Your task to perform on an android device: open the mobile data screen to see how much data has been used Image 0: 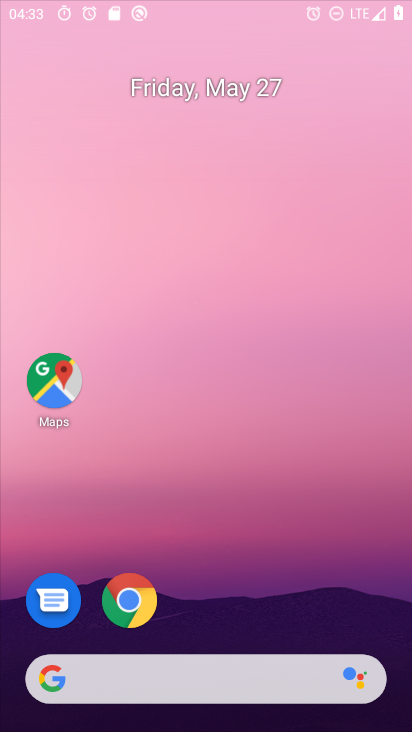
Step 0: drag from (161, 442) to (132, 117)
Your task to perform on an android device: open the mobile data screen to see how much data has been used Image 1: 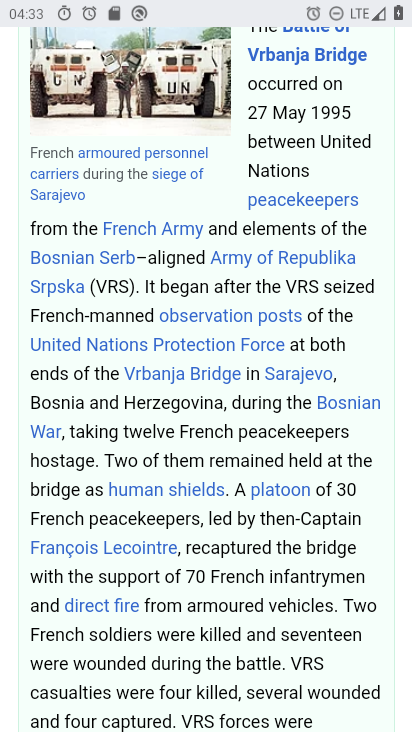
Step 1: press home button
Your task to perform on an android device: open the mobile data screen to see how much data has been used Image 2: 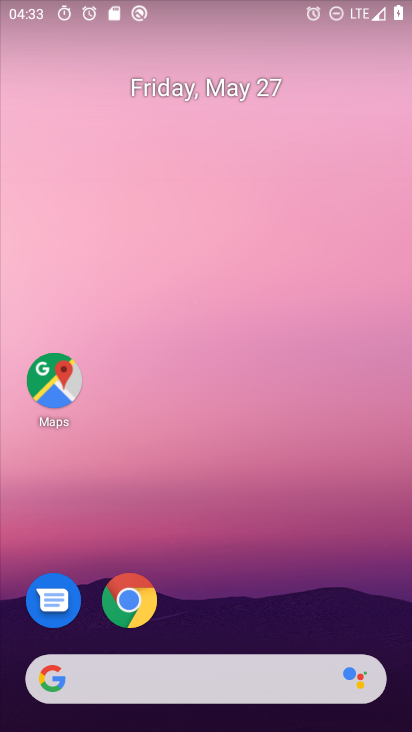
Step 2: drag from (216, 722) to (218, 40)
Your task to perform on an android device: open the mobile data screen to see how much data has been used Image 3: 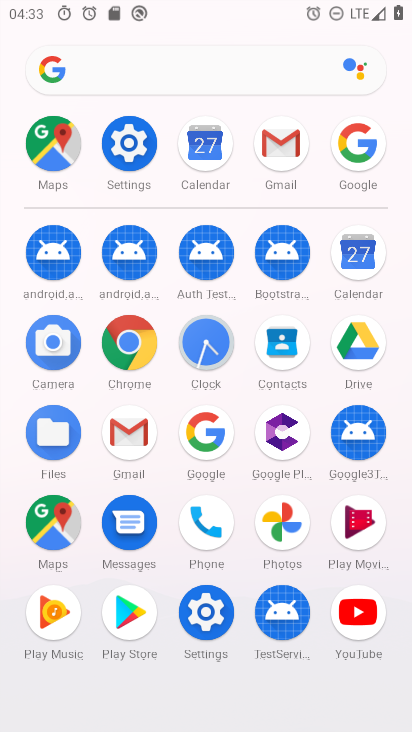
Step 3: click (133, 145)
Your task to perform on an android device: open the mobile data screen to see how much data has been used Image 4: 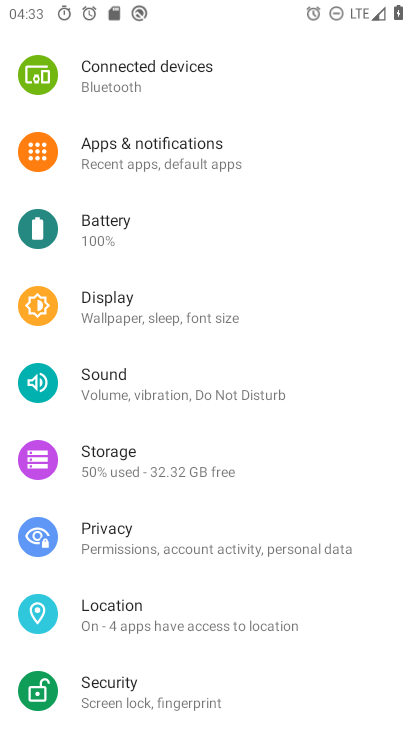
Step 4: drag from (176, 112) to (183, 473)
Your task to perform on an android device: open the mobile data screen to see how much data has been used Image 5: 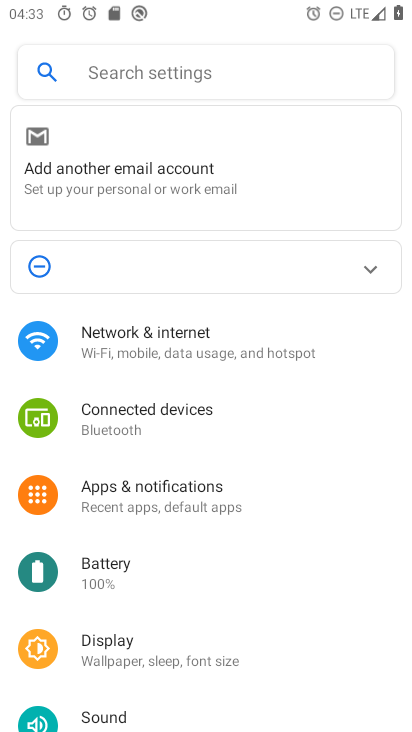
Step 5: click (161, 350)
Your task to perform on an android device: open the mobile data screen to see how much data has been used Image 6: 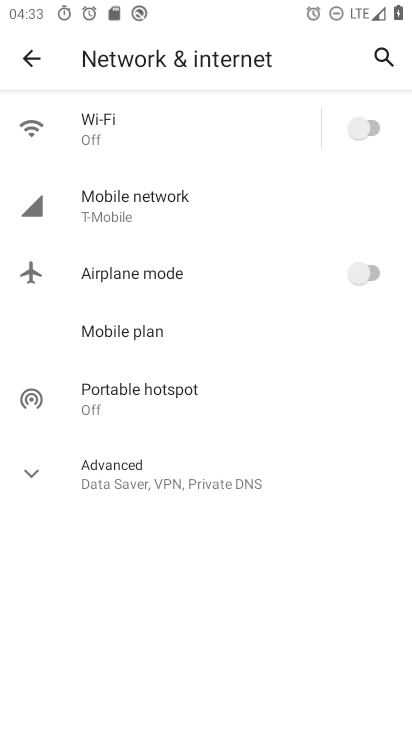
Step 6: click (113, 194)
Your task to perform on an android device: open the mobile data screen to see how much data has been used Image 7: 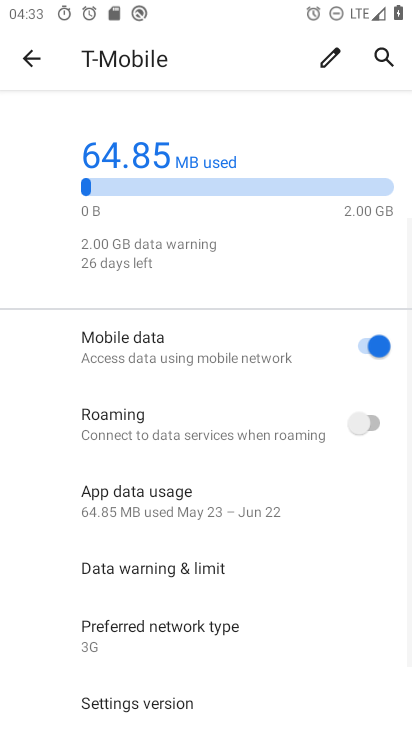
Step 7: click (151, 516)
Your task to perform on an android device: open the mobile data screen to see how much data has been used Image 8: 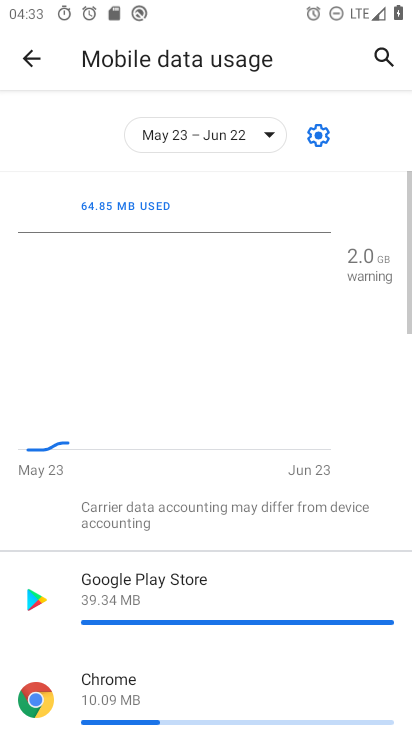
Step 8: task complete